Your task to perform on an android device: change alarm snooze length Image 0: 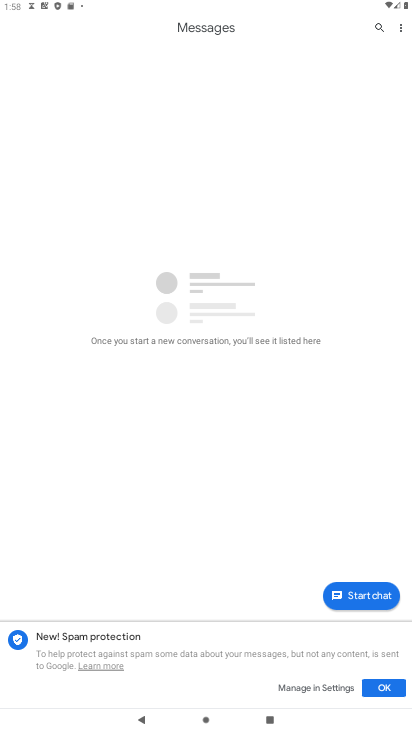
Step 0: press home button
Your task to perform on an android device: change alarm snooze length Image 1: 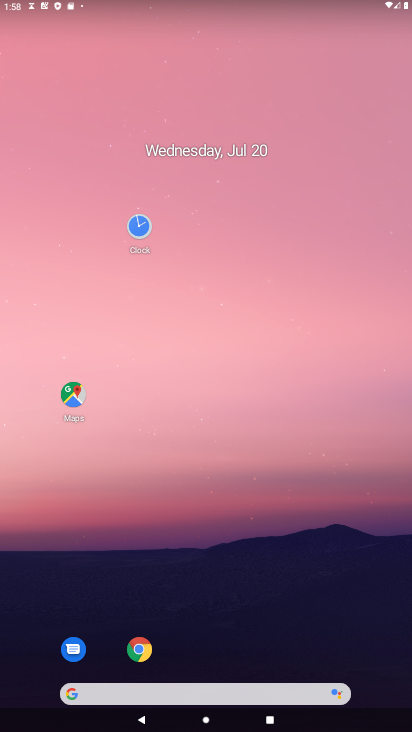
Step 1: drag from (263, 623) to (295, 159)
Your task to perform on an android device: change alarm snooze length Image 2: 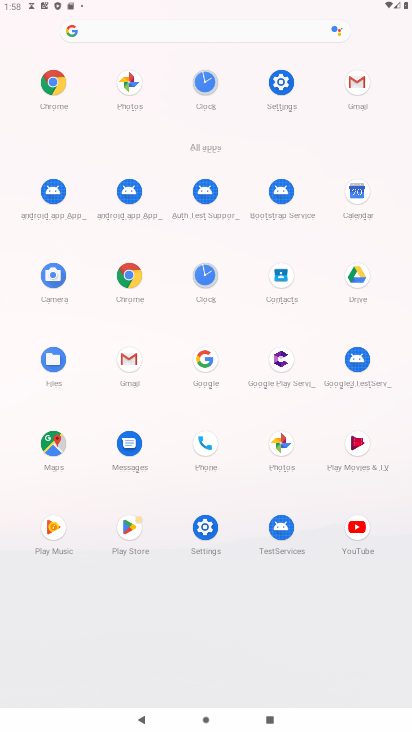
Step 2: click (215, 269)
Your task to perform on an android device: change alarm snooze length Image 3: 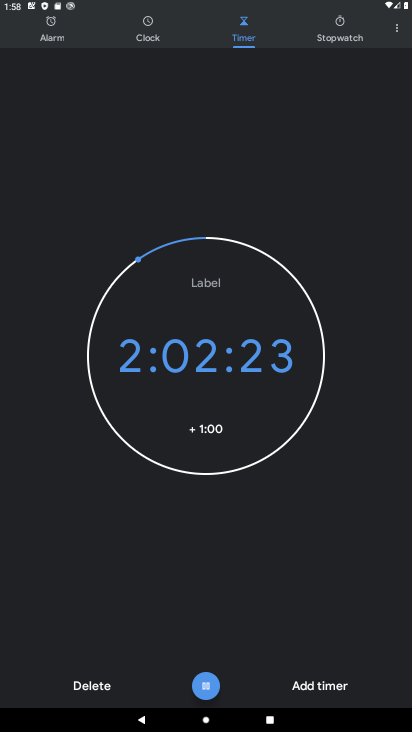
Step 3: click (394, 29)
Your task to perform on an android device: change alarm snooze length Image 4: 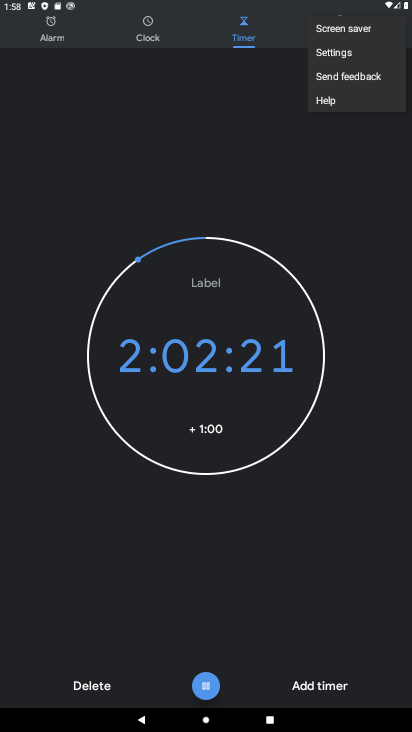
Step 4: click (370, 52)
Your task to perform on an android device: change alarm snooze length Image 5: 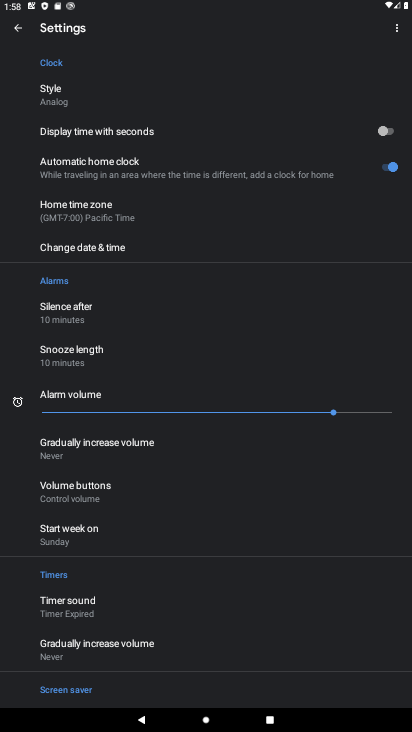
Step 5: click (169, 362)
Your task to perform on an android device: change alarm snooze length Image 6: 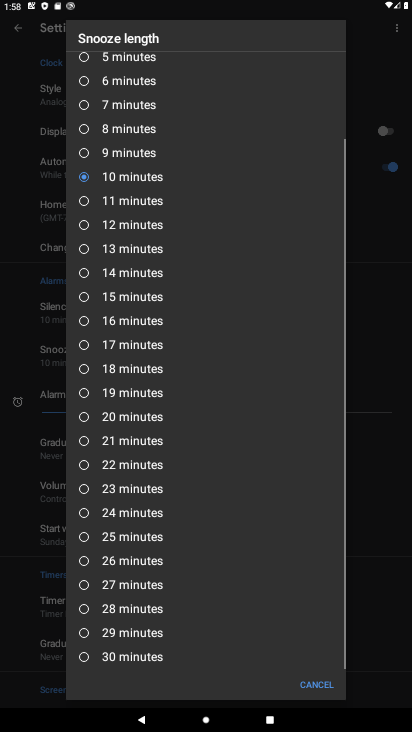
Step 6: click (147, 86)
Your task to perform on an android device: change alarm snooze length Image 7: 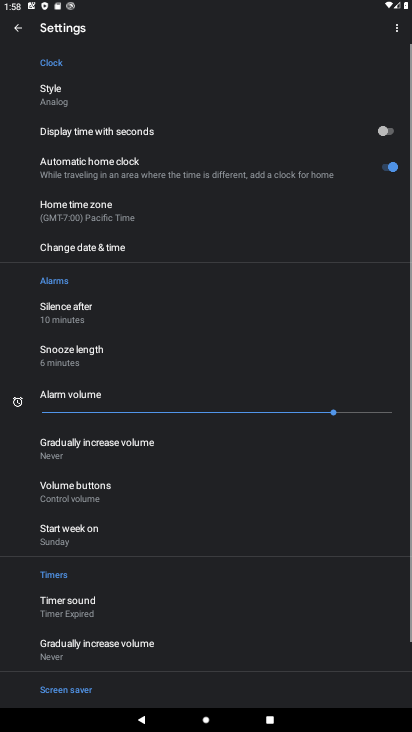
Step 7: task complete